Your task to perform on an android device: change keyboard looks Image 0: 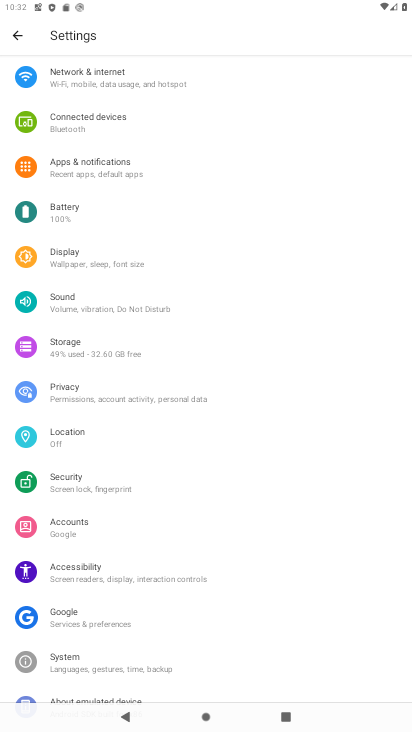
Step 0: drag from (156, 660) to (200, 301)
Your task to perform on an android device: change keyboard looks Image 1: 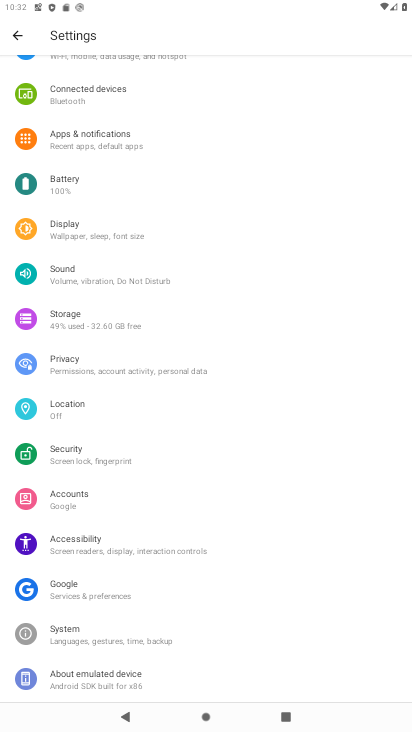
Step 1: click (124, 661)
Your task to perform on an android device: change keyboard looks Image 2: 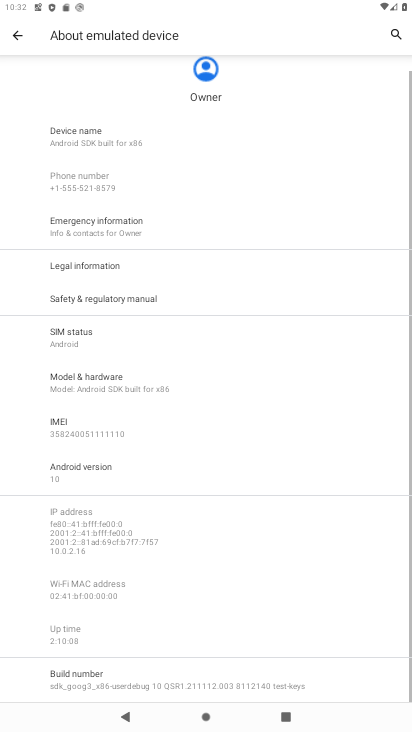
Step 2: drag from (118, 669) to (173, 233)
Your task to perform on an android device: change keyboard looks Image 3: 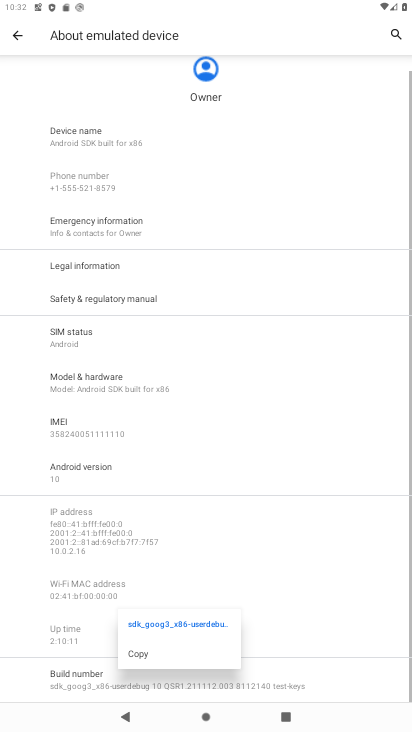
Step 3: click (293, 563)
Your task to perform on an android device: change keyboard looks Image 4: 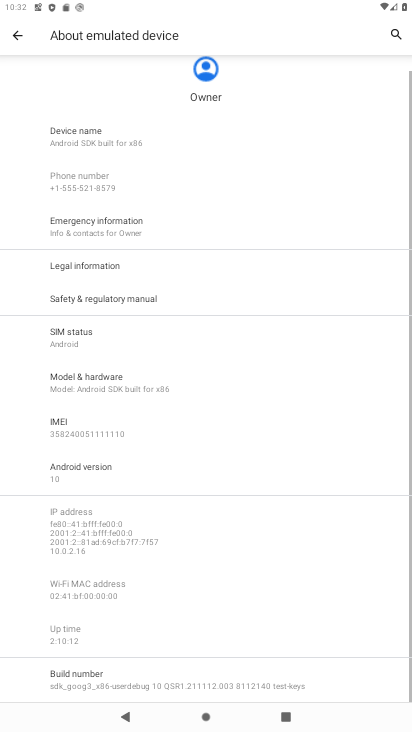
Step 4: task complete